Your task to perform on an android device: open app "ColorNote Notepad Notes" Image 0: 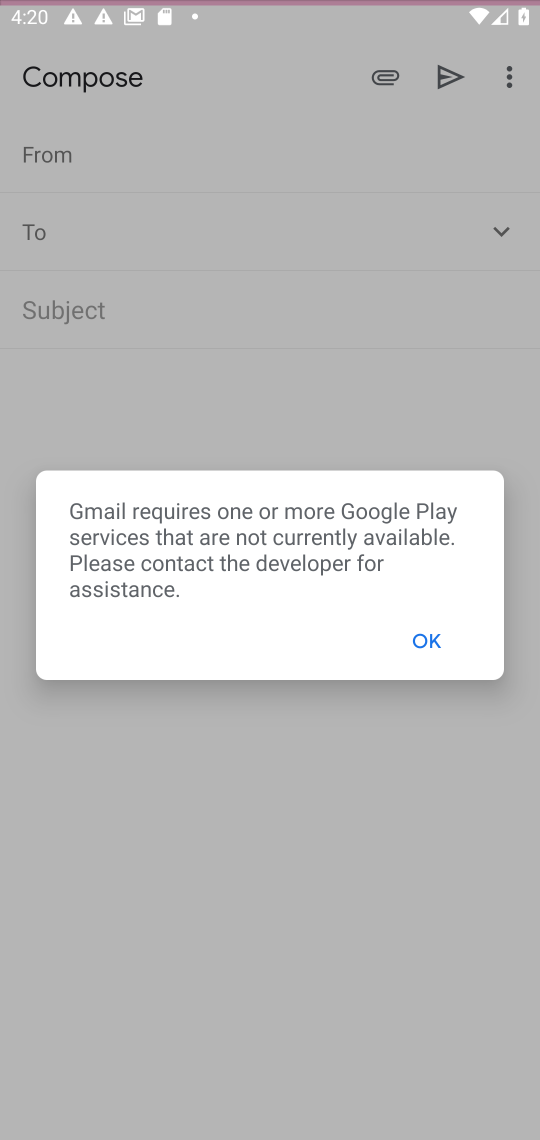
Step 0: click (224, 77)
Your task to perform on an android device: open app "ColorNote Notepad Notes" Image 1: 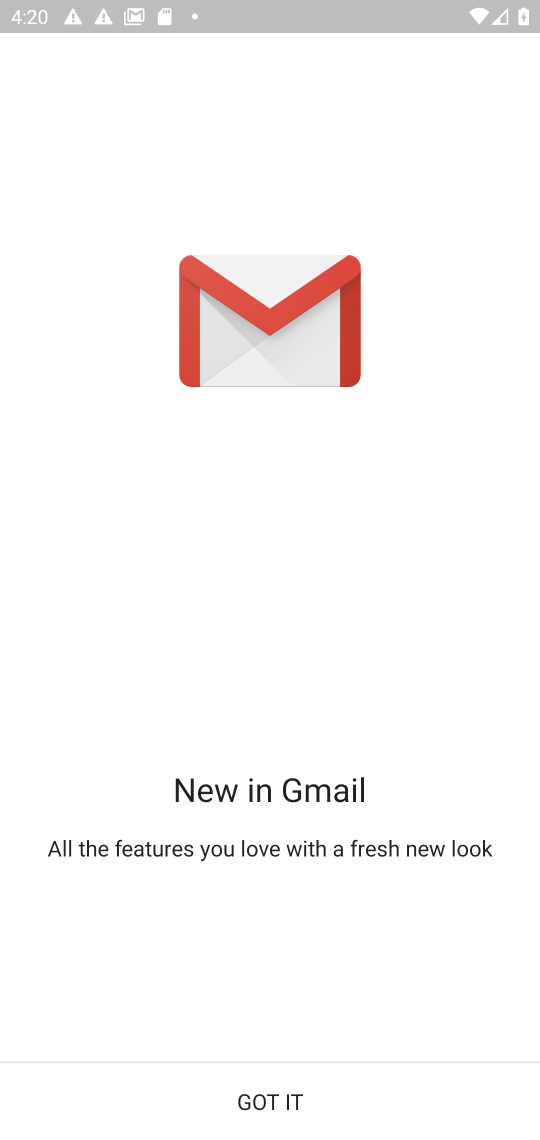
Step 1: press home button
Your task to perform on an android device: open app "ColorNote Notepad Notes" Image 2: 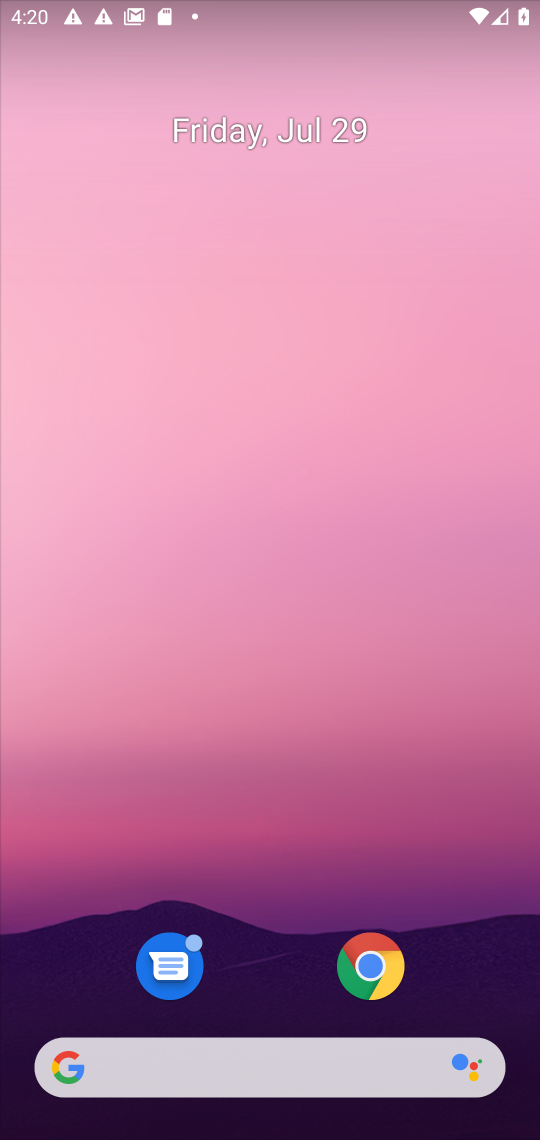
Step 2: drag from (238, 1025) to (323, 24)
Your task to perform on an android device: open app "ColorNote Notepad Notes" Image 3: 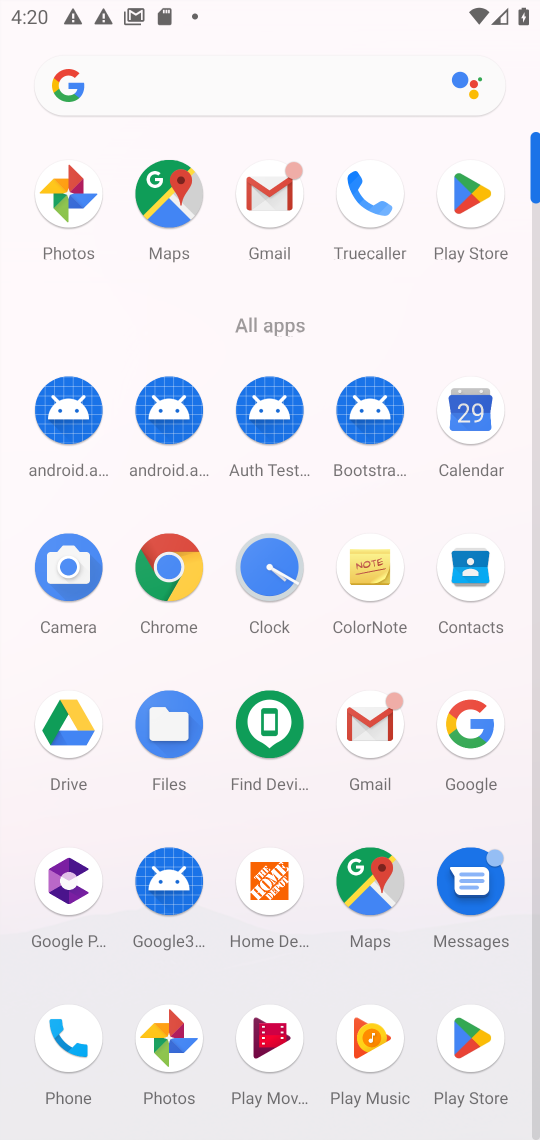
Step 3: click (459, 212)
Your task to perform on an android device: open app "ColorNote Notepad Notes" Image 4: 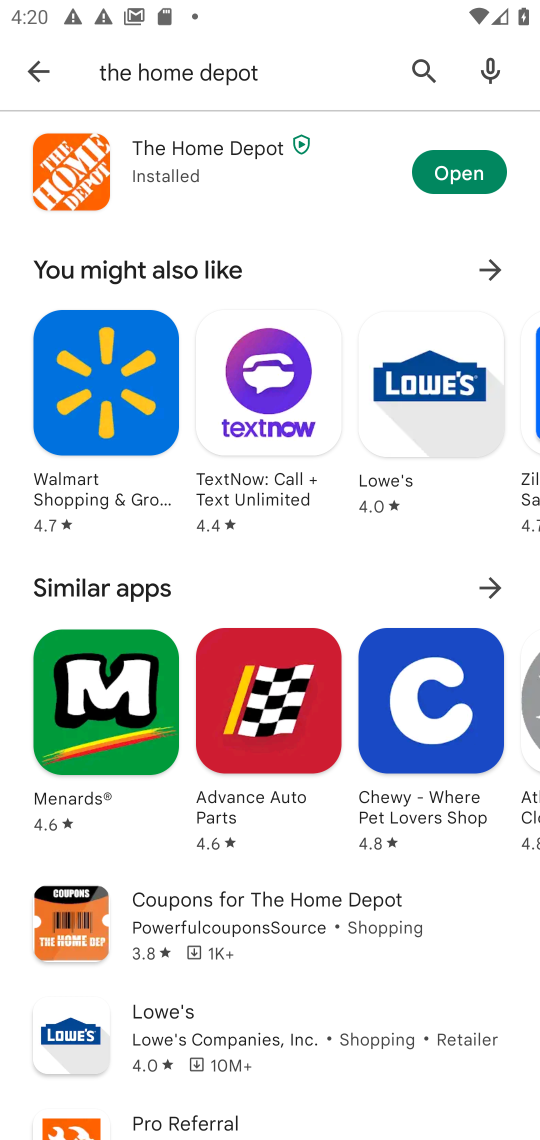
Step 4: click (217, 81)
Your task to perform on an android device: open app "ColorNote Notepad Notes" Image 5: 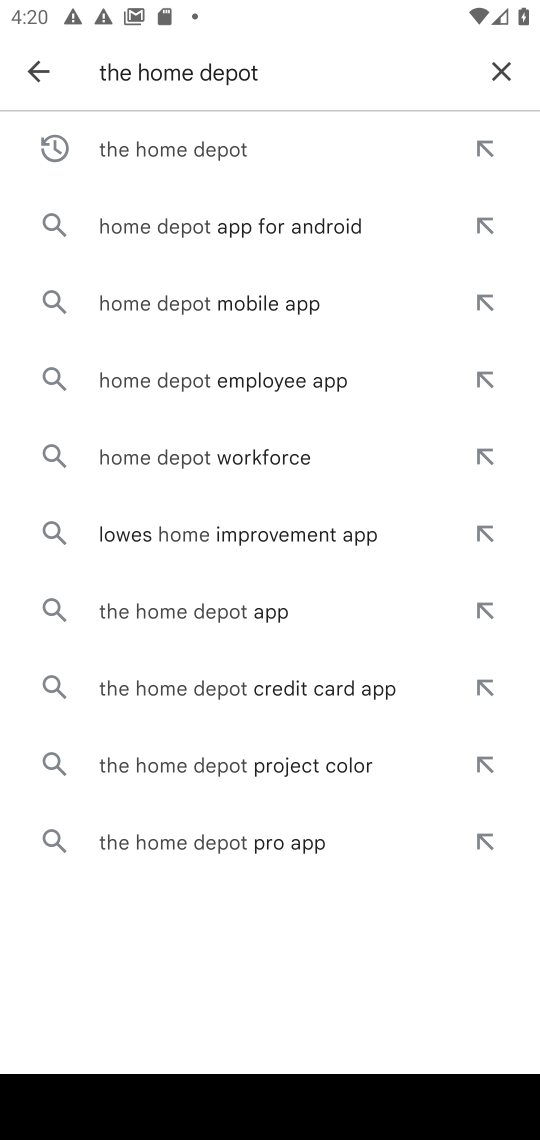
Step 5: click (509, 73)
Your task to perform on an android device: open app "ColorNote Notepad Notes" Image 6: 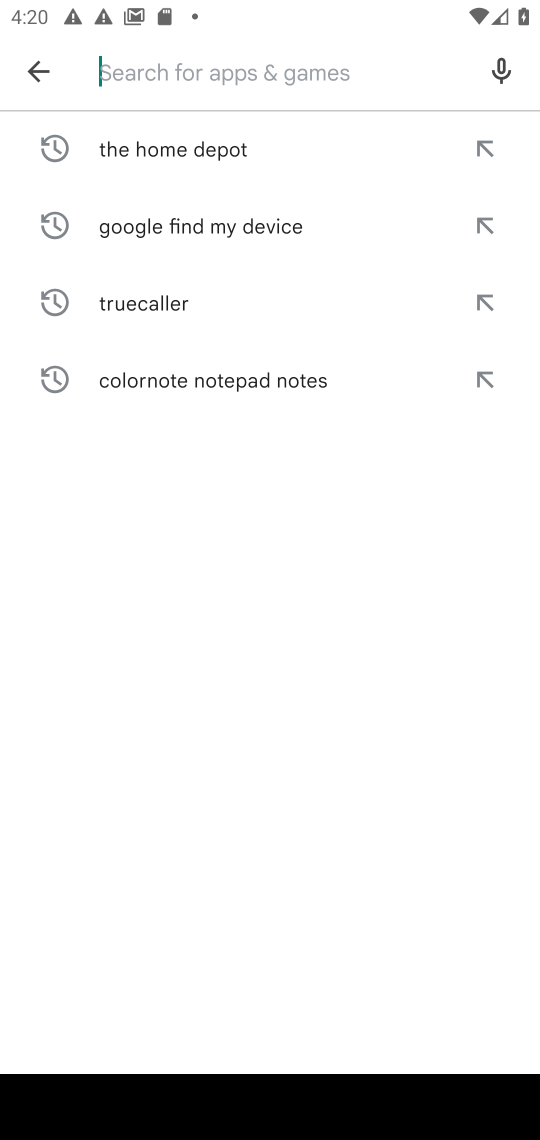
Step 6: type "colorNote Notepad Notes"
Your task to perform on an android device: open app "ColorNote Notepad Notes" Image 7: 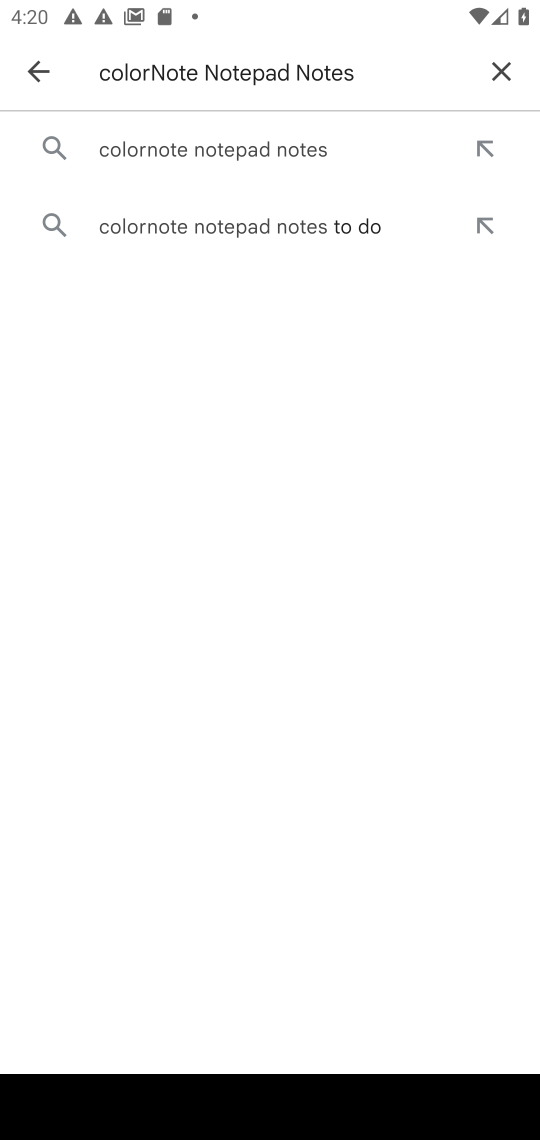
Step 7: click (217, 154)
Your task to perform on an android device: open app "ColorNote Notepad Notes" Image 8: 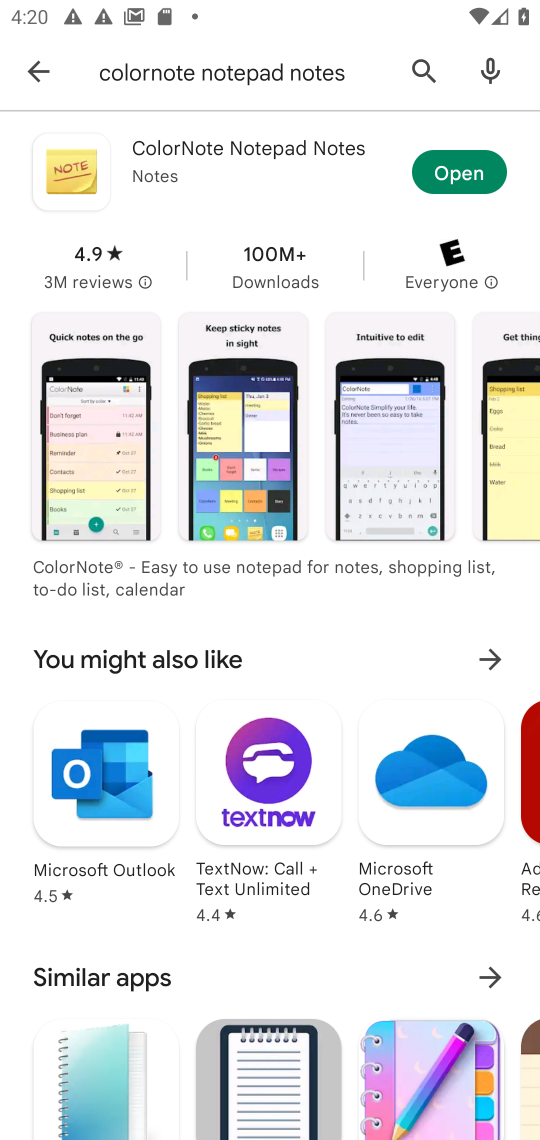
Step 8: click (473, 170)
Your task to perform on an android device: open app "ColorNote Notepad Notes" Image 9: 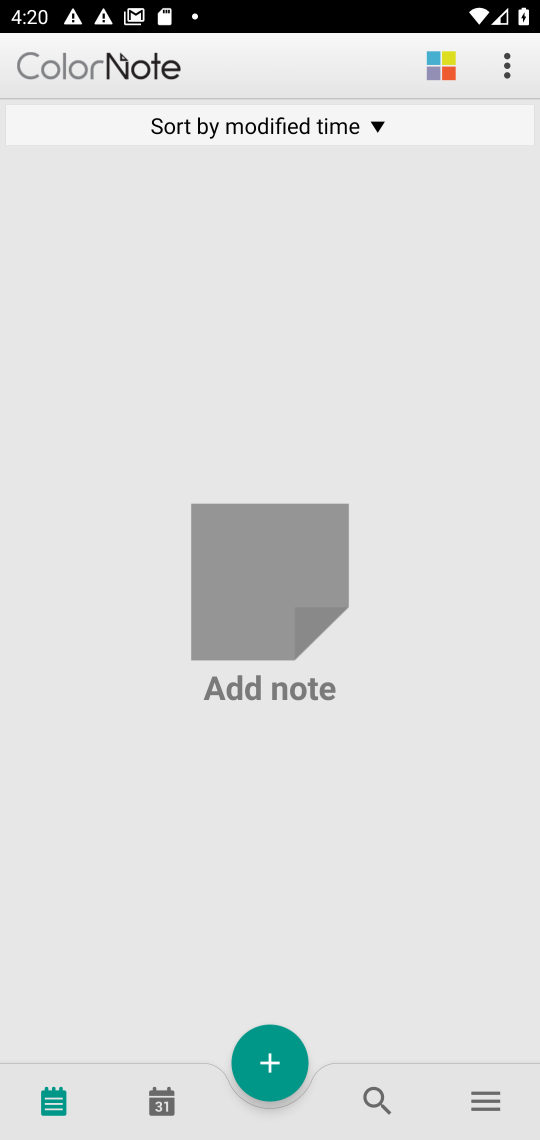
Step 9: task complete